Your task to perform on an android device: Go to eBay Image 0: 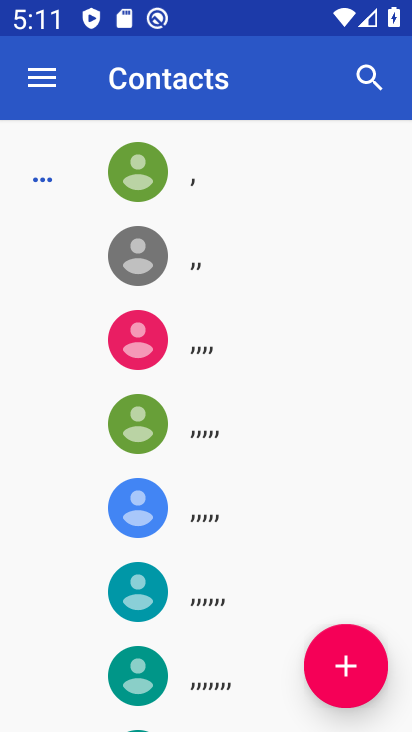
Step 0: press back button
Your task to perform on an android device: Go to eBay Image 1: 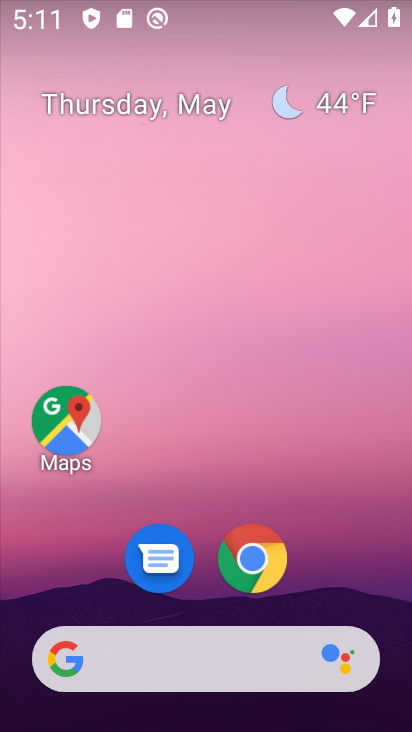
Step 1: click (258, 555)
Your task to perform on an android device: Go to eBay Image 2: 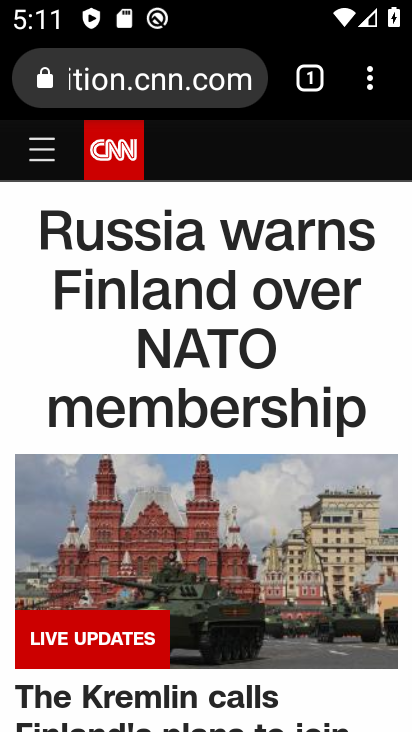
Step 2: click (166, 75)
Your task to perform on an android device: Go to eBay Image 3: 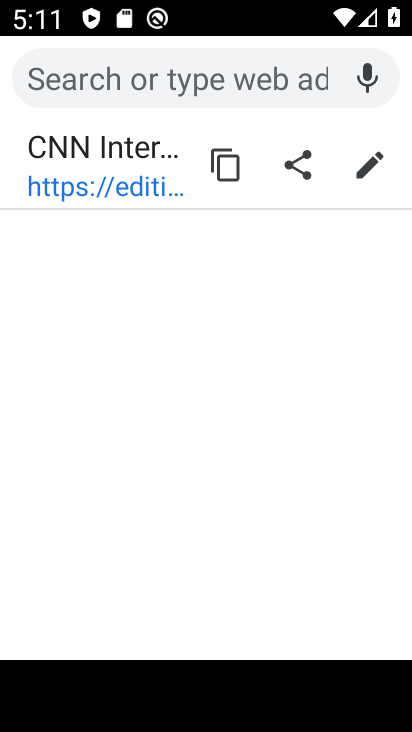
Step 3: type "eBay"
Your task to perform on an android device: Go to eBay Image 4: 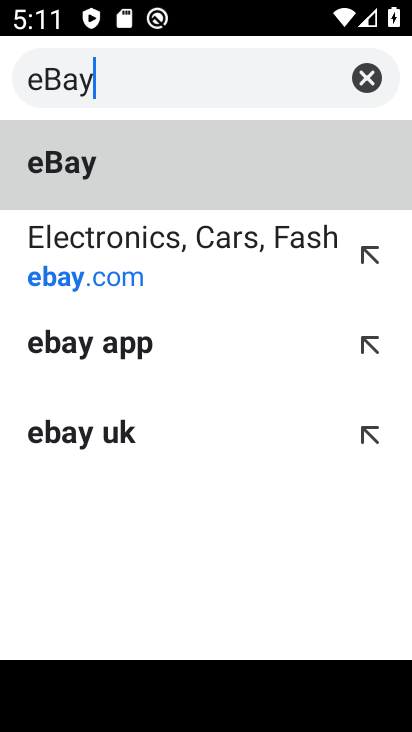
Step 4: type ""
Your task to perform on an android device: Go to eBay Image 5: 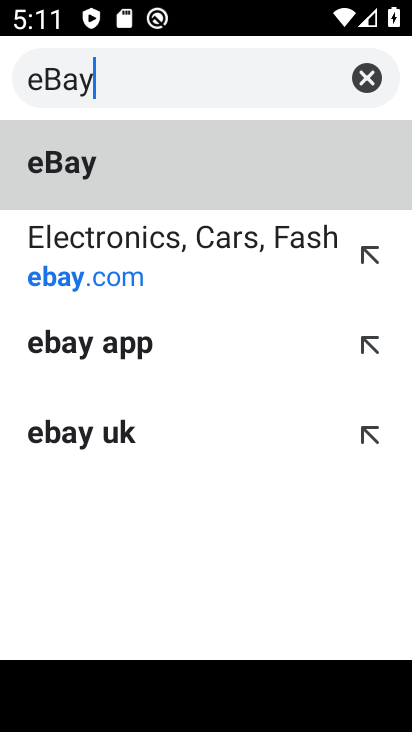
Step 5: click (158, 165)
Your task to perform on an android device: Go to eBay Image 6: 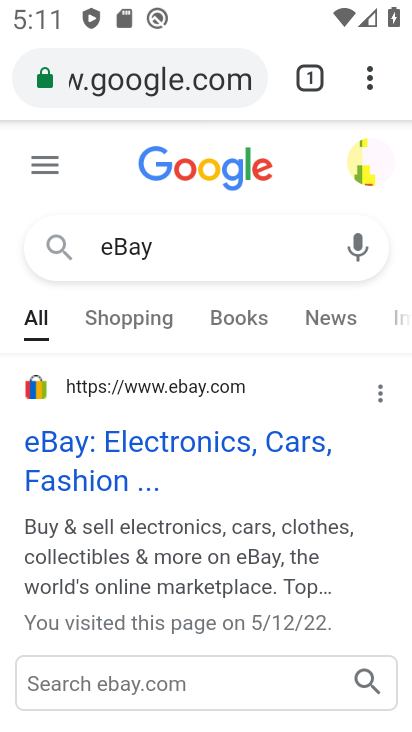
Step 6: click (74, 445)
Your task to perform on an android device: Go to eBay Image 7: 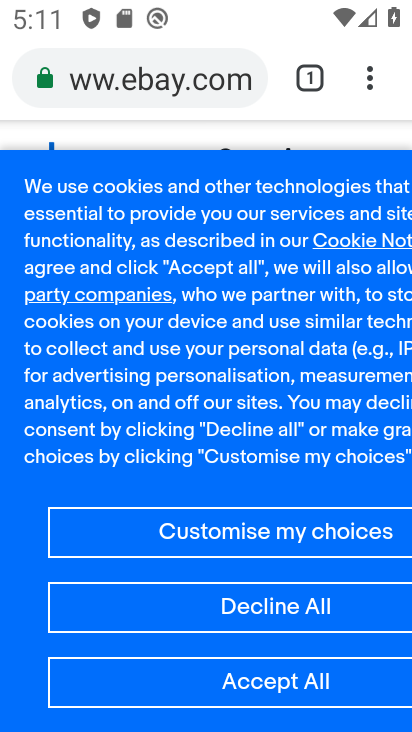
Step 7: click (272, 677)
Your task to perform on an android device: Go to eBay Image 8: 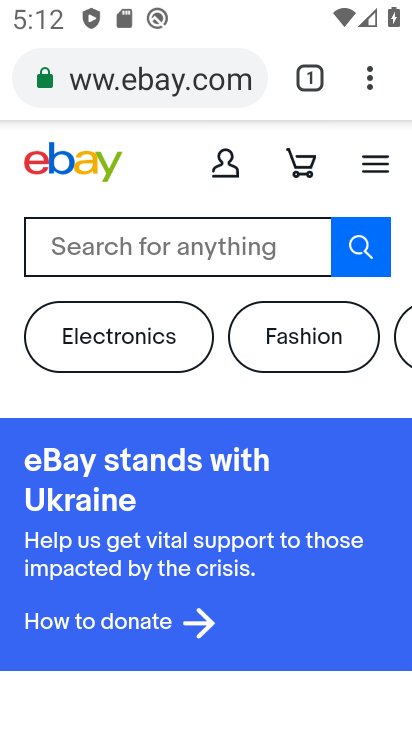
Step 8: task complete